Your task to perform on an android device: check storage Image 0: 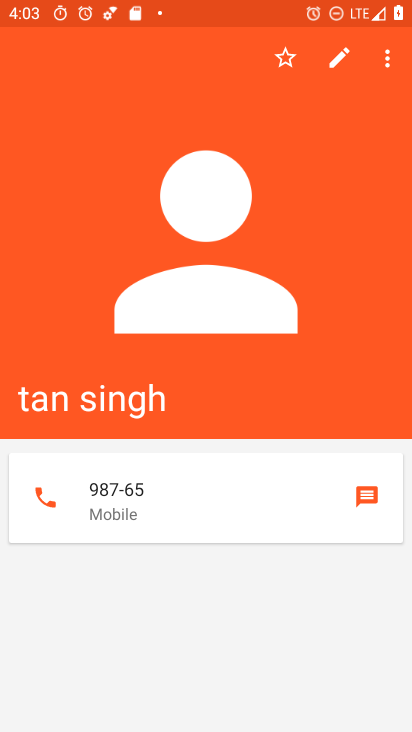
Step 0: press home button
Your task to perform on an android device: check storage Image 1: 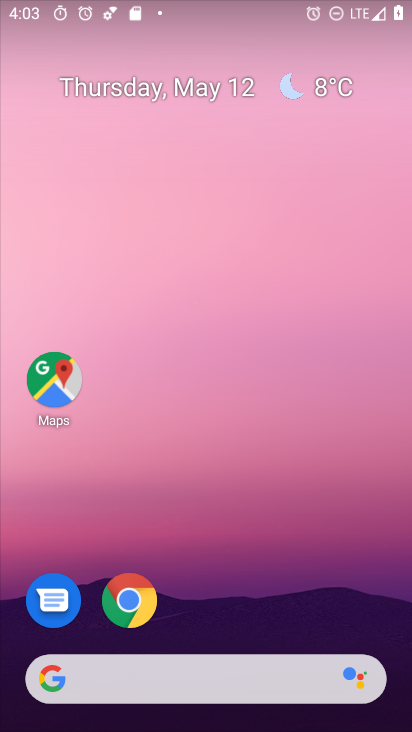
Step 1: drag from (225, 726) to (217, 160)
Your task to perform on an android device: check storage Image 2: 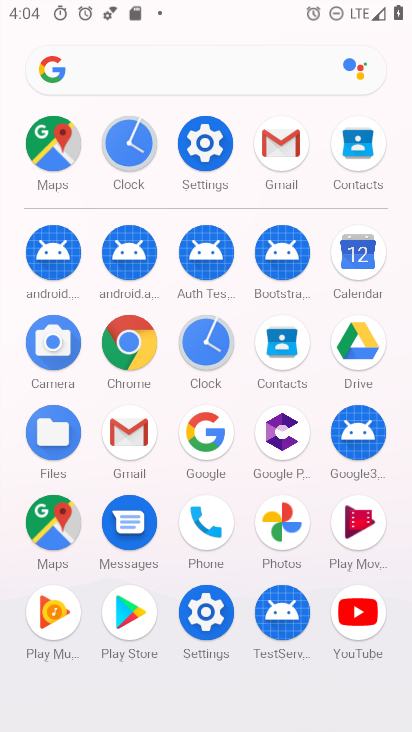
Step 2: click (202, 138)
Your task to perform on an android device: check storage Image 3: 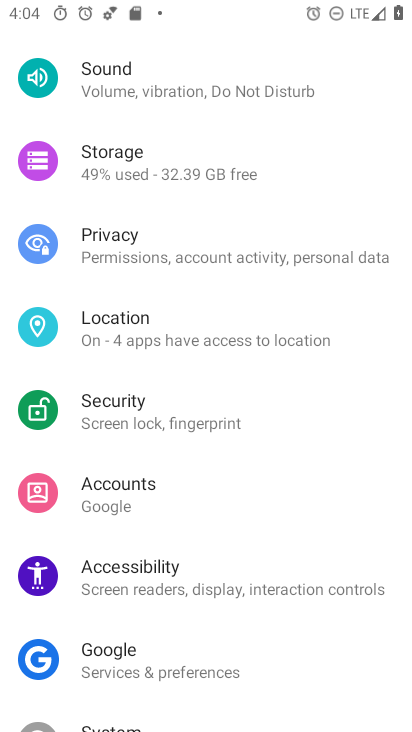
Step 3: click (107, 165)
Your task to perform on an android device: check storage Image 4: 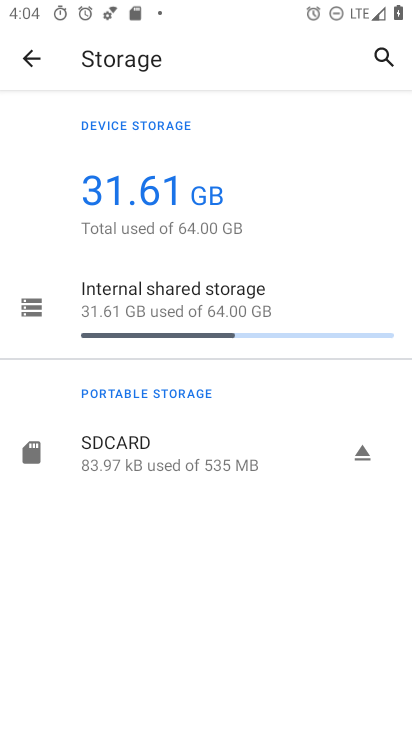
Step 4: task complete